Your task to perform on an android device: Go to Maps Image 0: 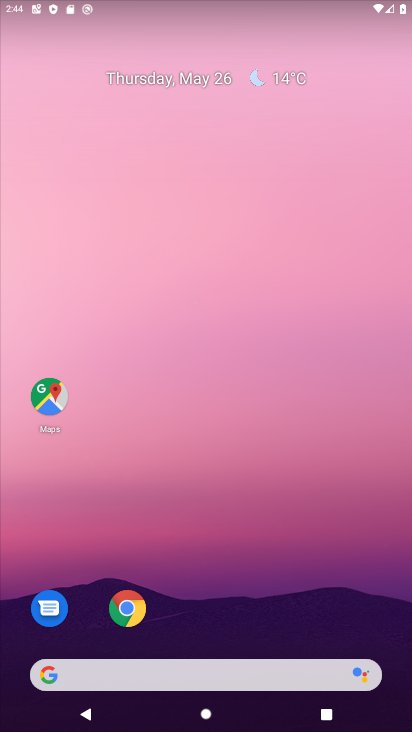
Step 0: drag from (325, 473) to (316, 27)
Your task to perform on an android device: Go to Maps Image 1: 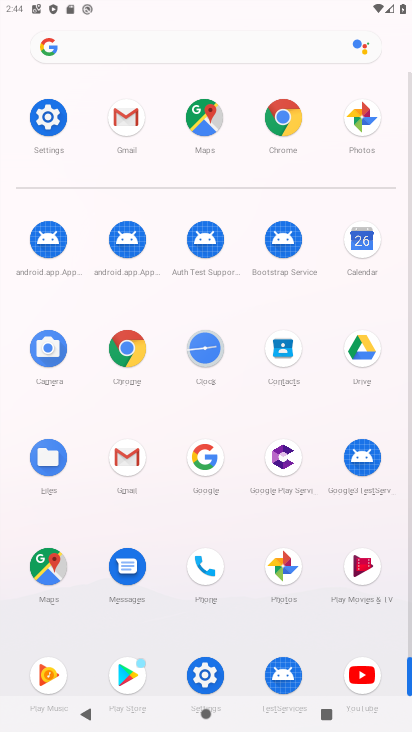
Step 1: click (198, 117)
Your task to perform on an android device: Go to Maps Image 2: 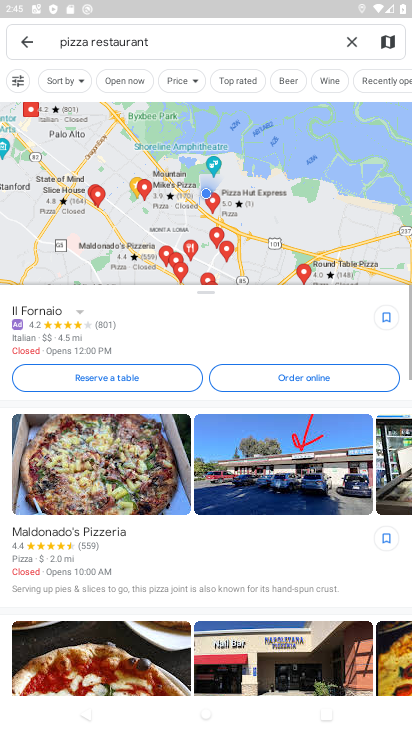
Step 2: task complete